Your task to perform on an android device: Open Amazon Image 0: 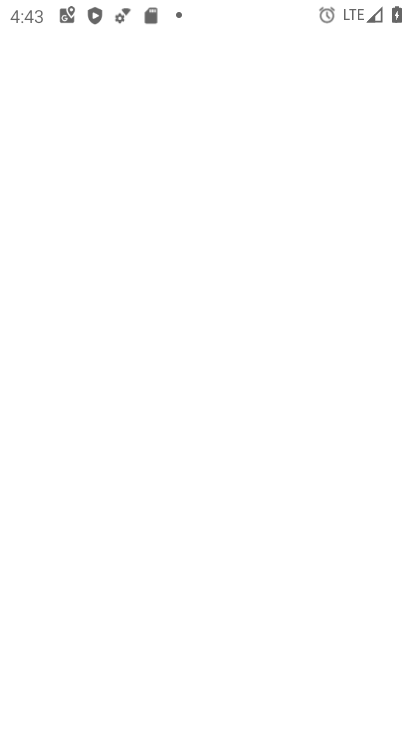
Step 0: press home button
Your task to perform on an android device: Open Amazon Image 1: 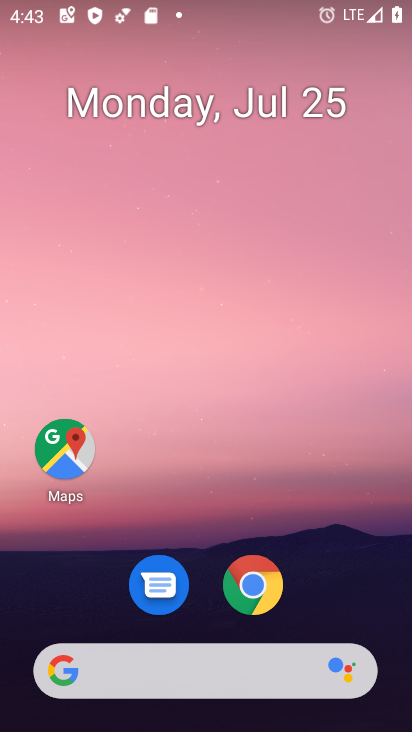
Step 1: click (260, 577)
Your task to perform on an android device: Open Amazon Image 2: 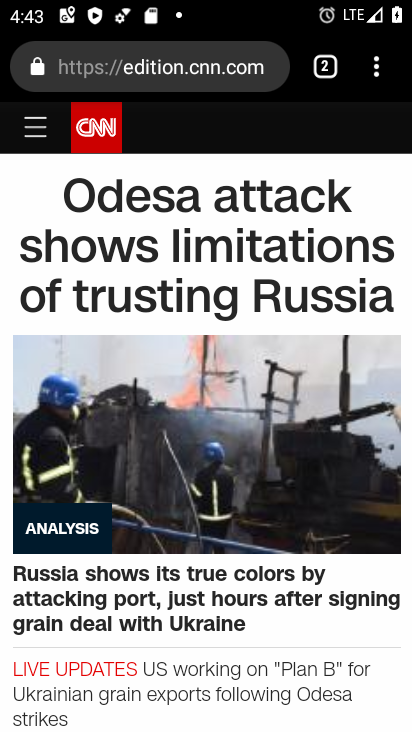
Step 2: click (376, 73)
Your task to perform on an android device: Open Amazon Image 3: 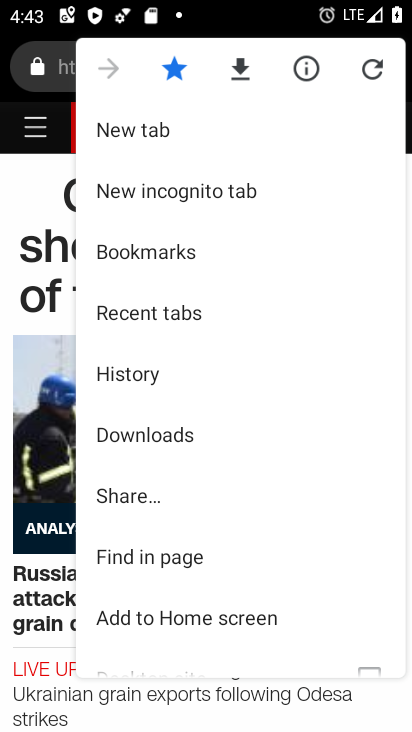
Step 3: click (242, 129)
Your task to perform on an android device: Open Amazon Image 4: 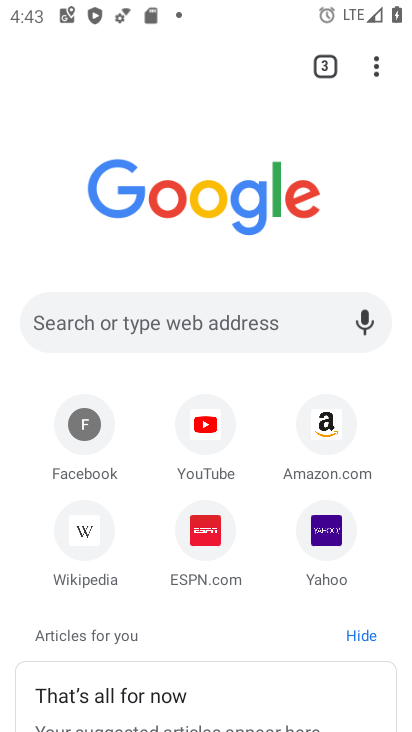
Step 4: click (312, 435)
Your task to perform on an android device: Open Amazon Image 5: 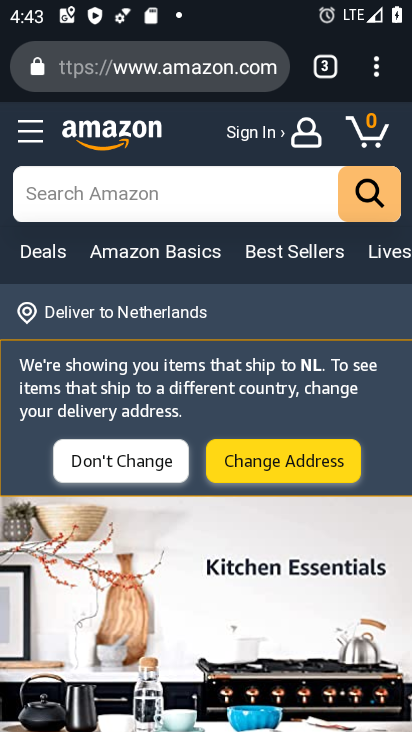
Step 5: task complete